Your task to perform on an android device: Show me the alarms in the clock app Image 0: 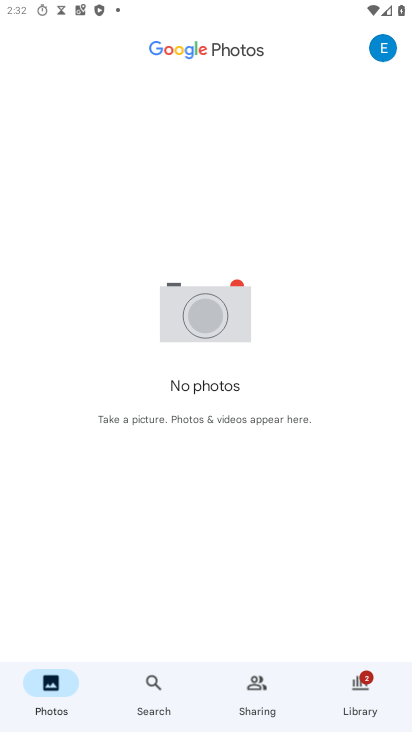
Step 0: press home button
Your task to perform on an android device: Show me the alarms in the clock app Image 1: 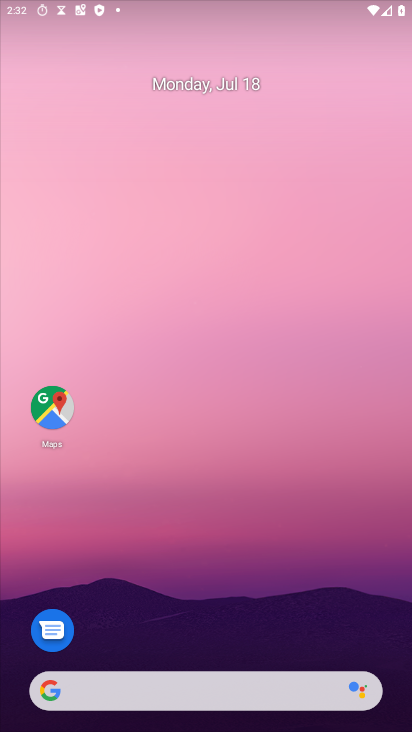
Step 1: drag from (290, 514) to (261, 0)
Your task to perform on an android device: Show me the alarms in the clock app Image 2: 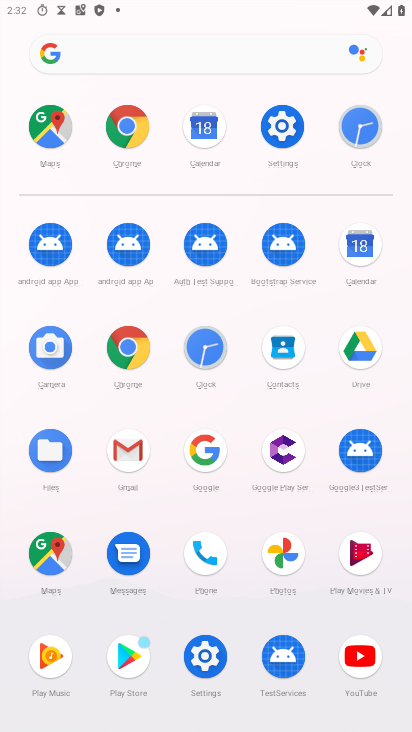
Step 2: click (211, 353)
Your task to perform on an android device: Show me the alarms in the clock app Image 3: 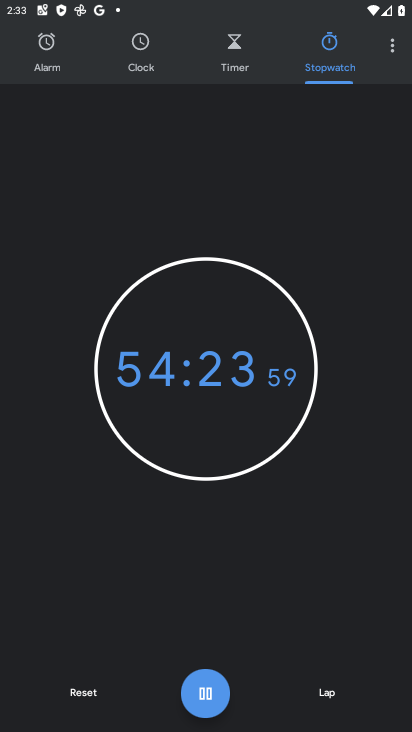
Step 3: click (50, 61)
Your task to perform on an android device: Show me the alarms in the clock app Image 4: 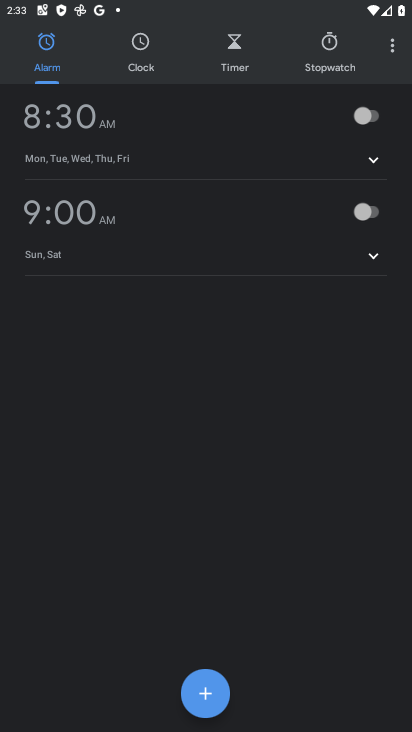
Step 4: task complete